Your task to perform on an android device: Open Yahoo.com Image 0: 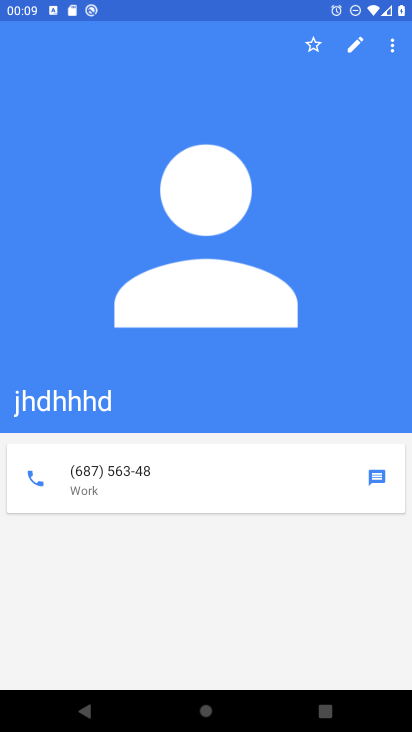
Step 0: press home button
Your task to perform on an android device: Open Yahoo.com Image 1: 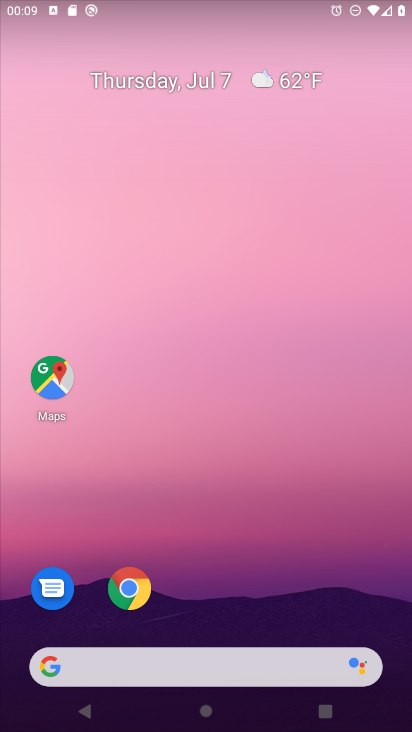
Step 1: click (127, 588)
Your task to perform on an android device: Open Yahoo.com Image 2: 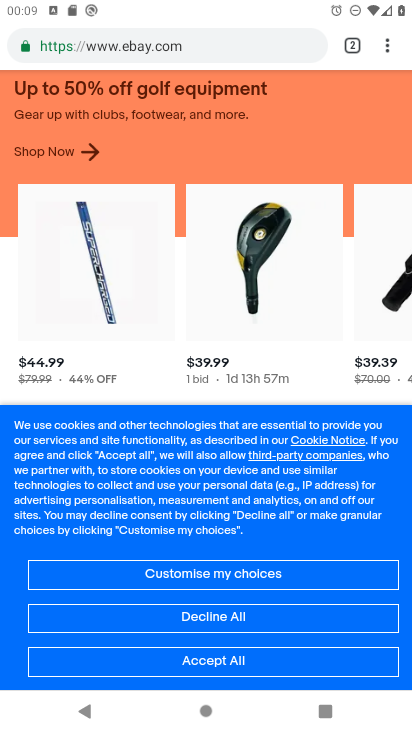
Step 2: click (214, 39)
Your task to perform on an android device: Open Yahoo.com Image 3: 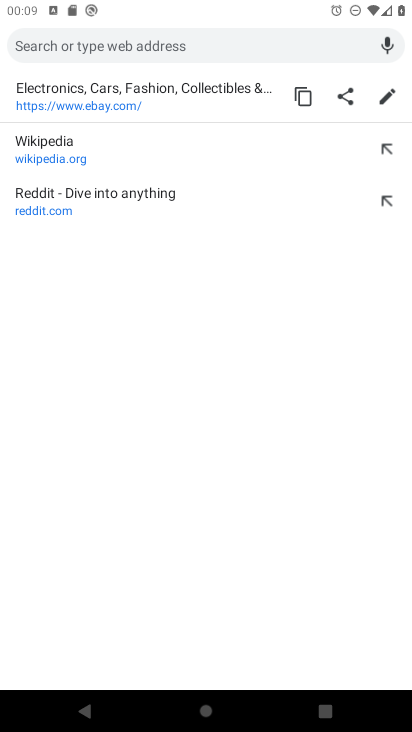
Step 3: type "yahoo.com"
Your task to perform on an android device: Open Yahoo.com Image 4: 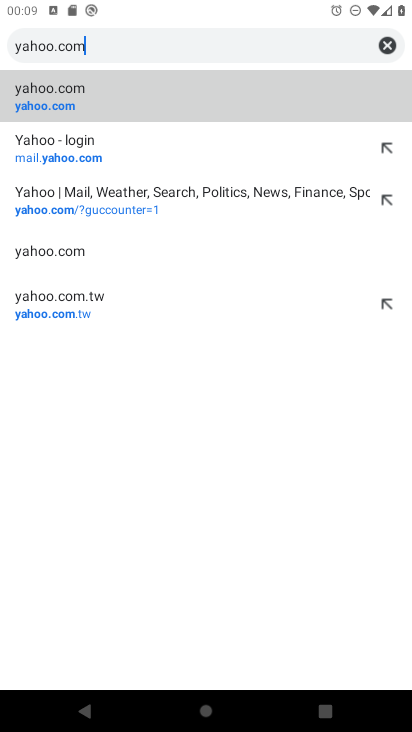
Step 4: click (65, 97)
Your task to perform on an android device: Open Yahoo.com Image 5: 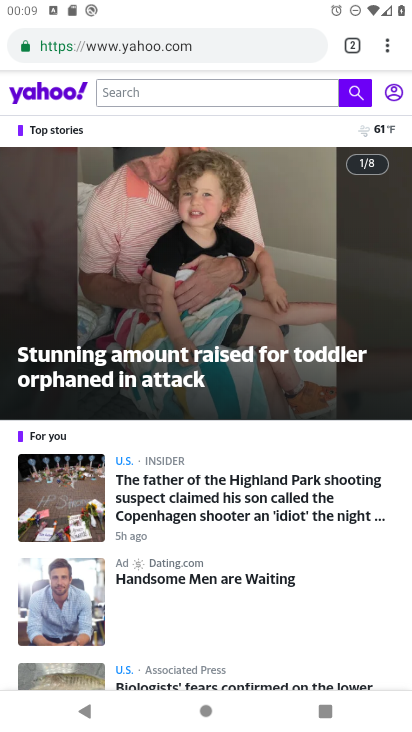
Step 5: task complete